Your task to perform on an android device: find which apps use the phone's location Image 0: 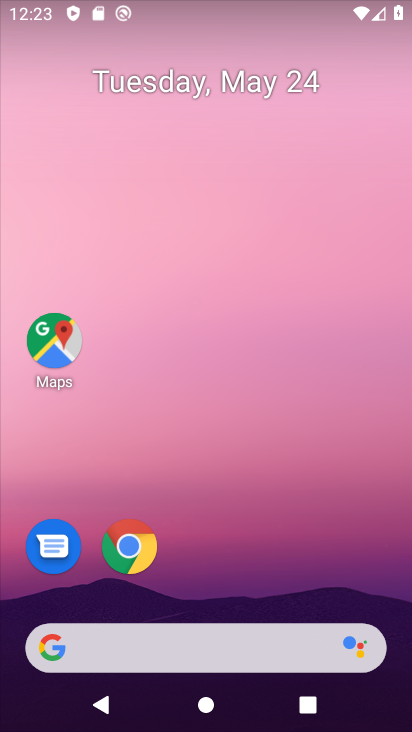
Step 0: drag from (274, 531) to (269, 196)
Your task to perform on an android device: find which apps use the phone's location Image 1: 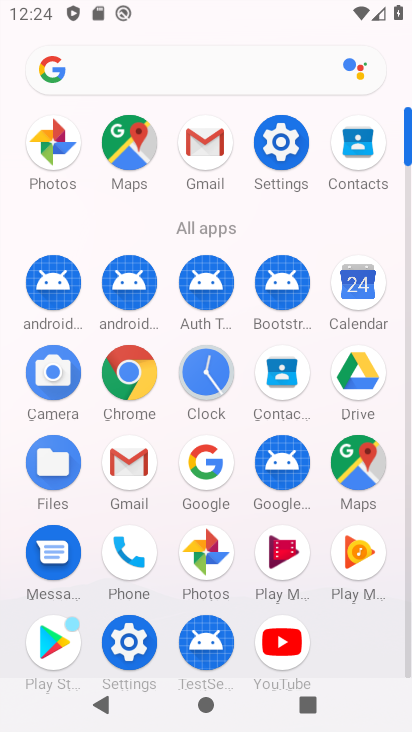
Step 1: click (112, 638)
Your task to perform on an android device: find which apps use the phone's location Image 2: 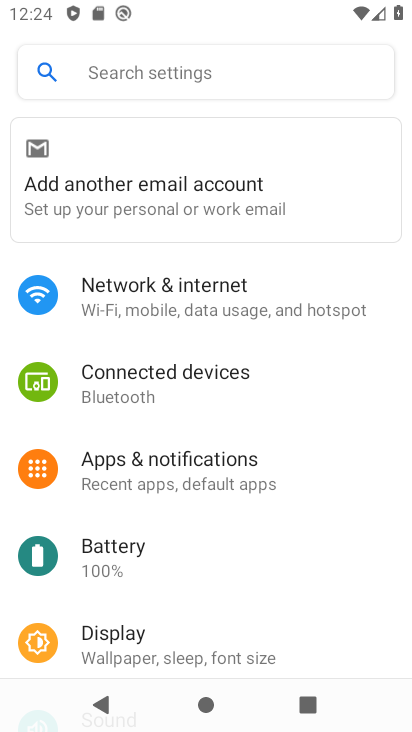
Step 2: drag from (166, 629) to (202, 342)
Your task to perform on an android device: find which apps use the phone's location Image 3: 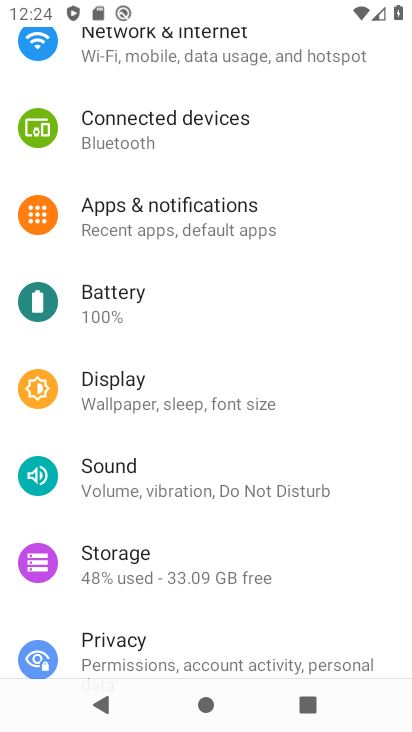
Step 3: drag from (147, 563) to (146, 353)
Your task to perform on an android device: find which apps use the phone's location Image 4: 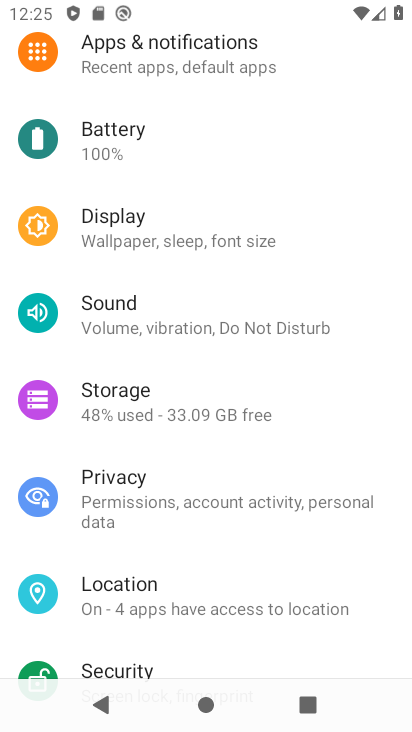
Step 4: drag from (148, 600) to (140, 505)
Your task to perform on an android device: find which apps use the phone's location Image 5: 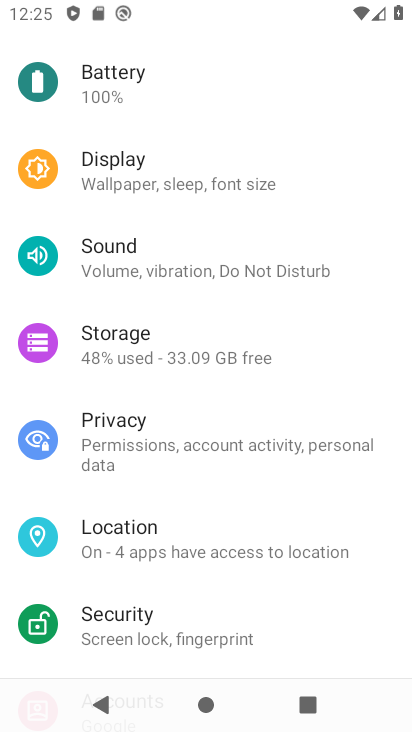
Step 5: click (130, 548)
Your task to perform on an android device: find which apps use the phone's location Image 6: 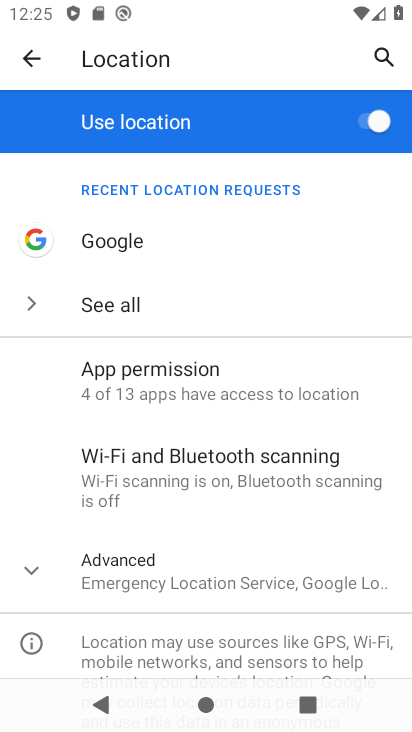
Step 6: click (176, 383)
Your task to perform on an android device: find which apps use the phone's location Image 7: 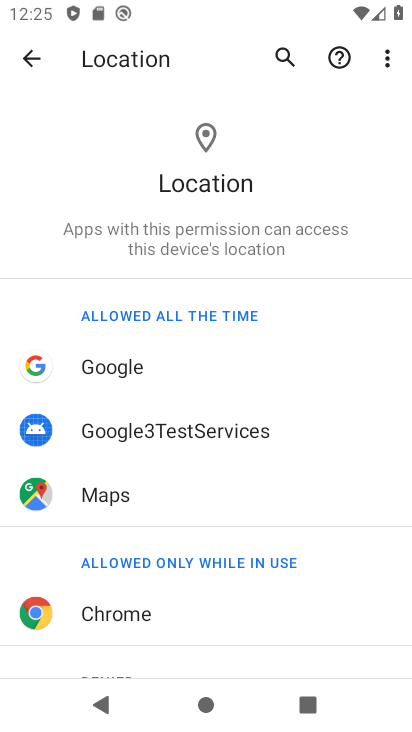
Step 7: task complete